Your task to perform on an android device: turn on improve location accuracy Image 0: 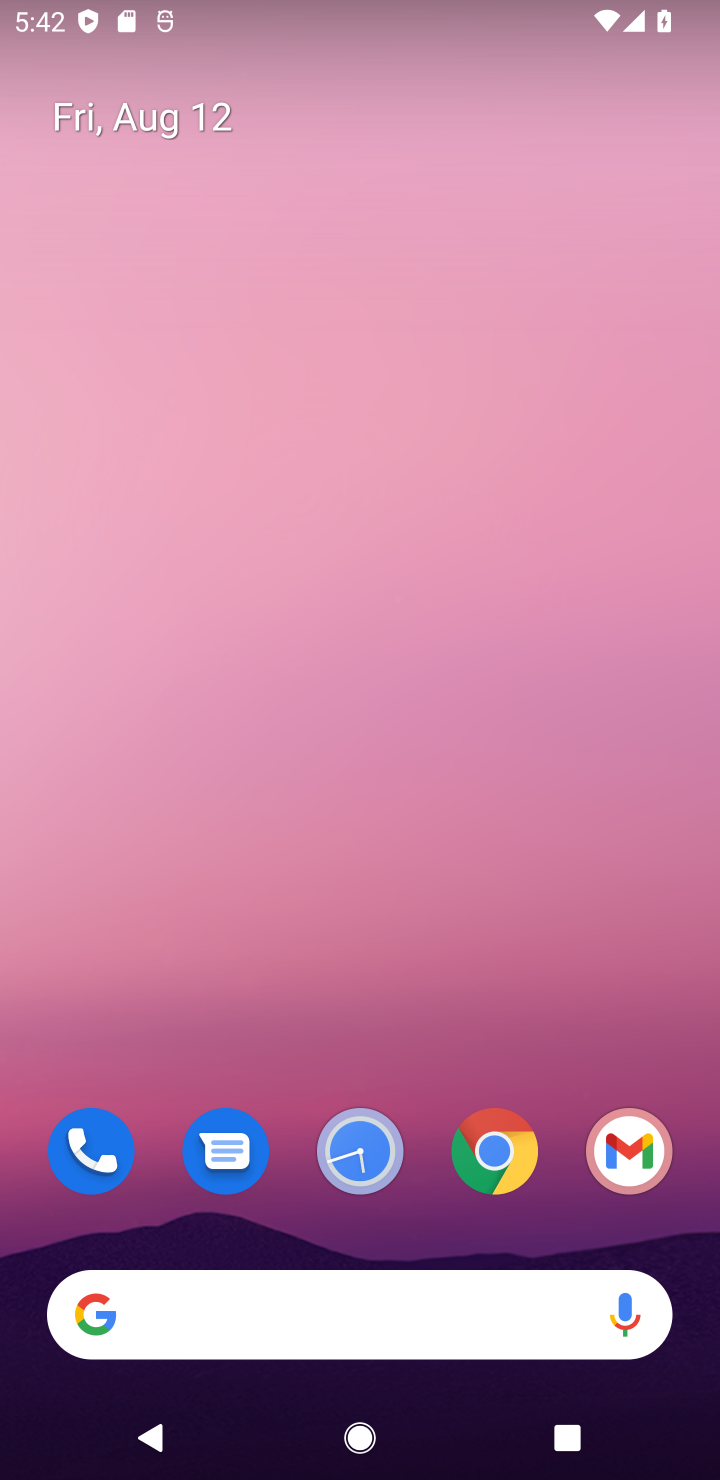
Step 0: drag from (563, 1096) to (486, 139)
Your task to perform on an android device: turn on improve location accuracy Image 1: 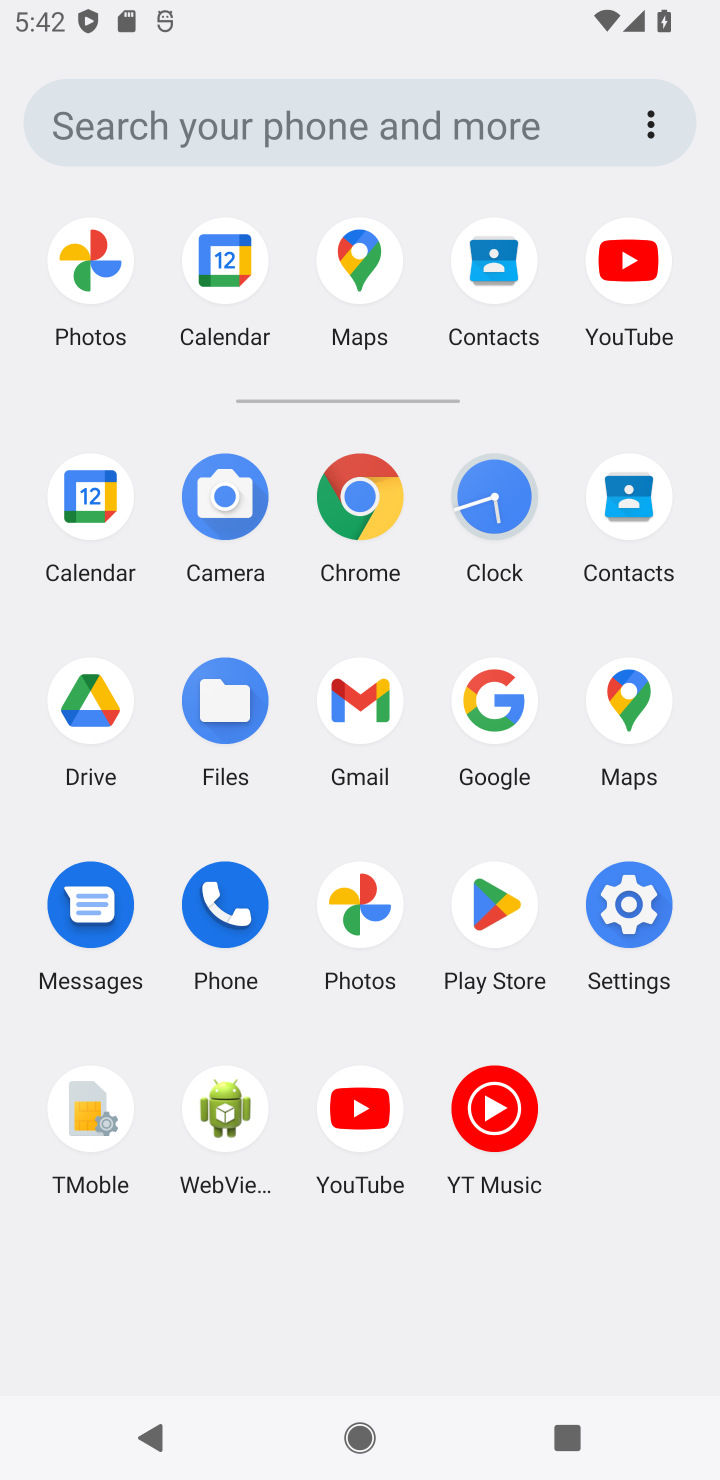
Step 1: click (638, 905)
Your task to perform on an android device: turn on improve location accuracy Image 2: 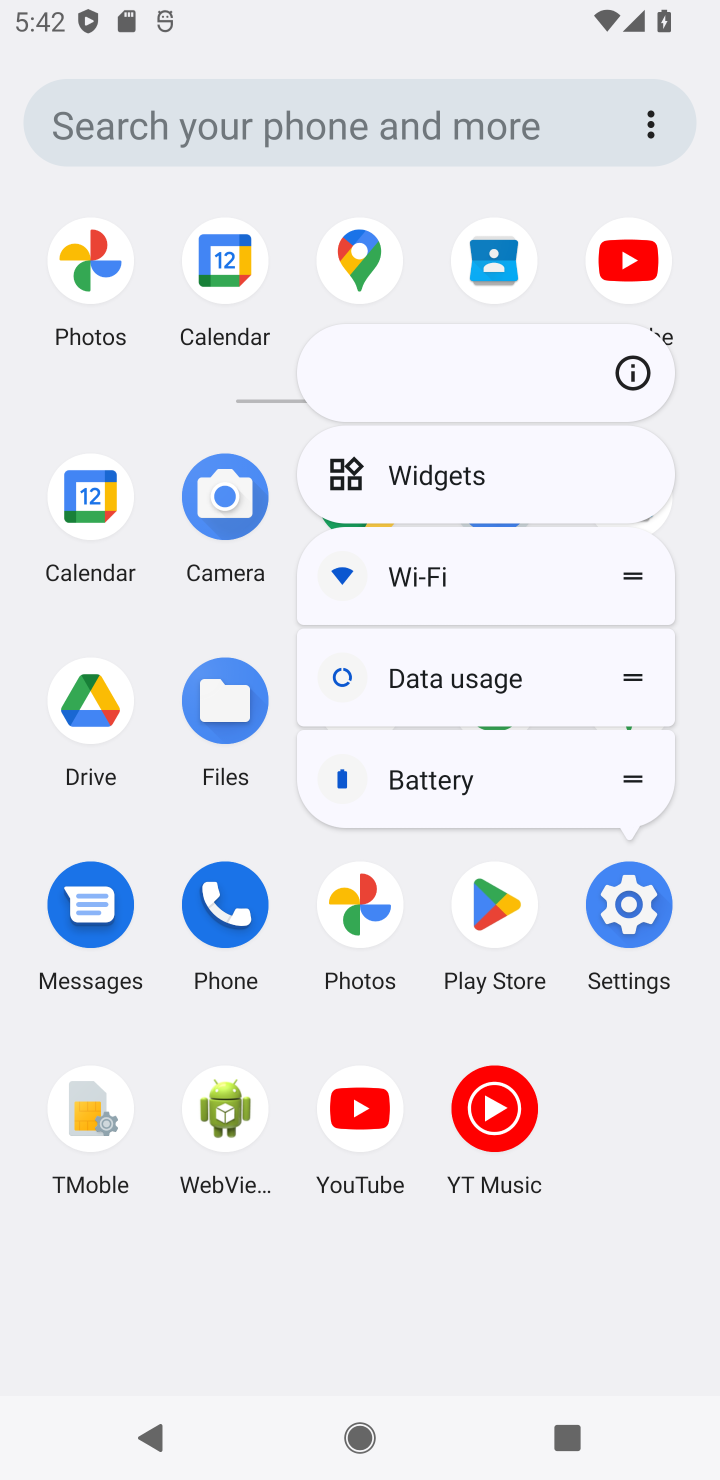
Step 2: click (628, 902)
Your task to perform on an android device: turn on improve location accuracy Image 3: 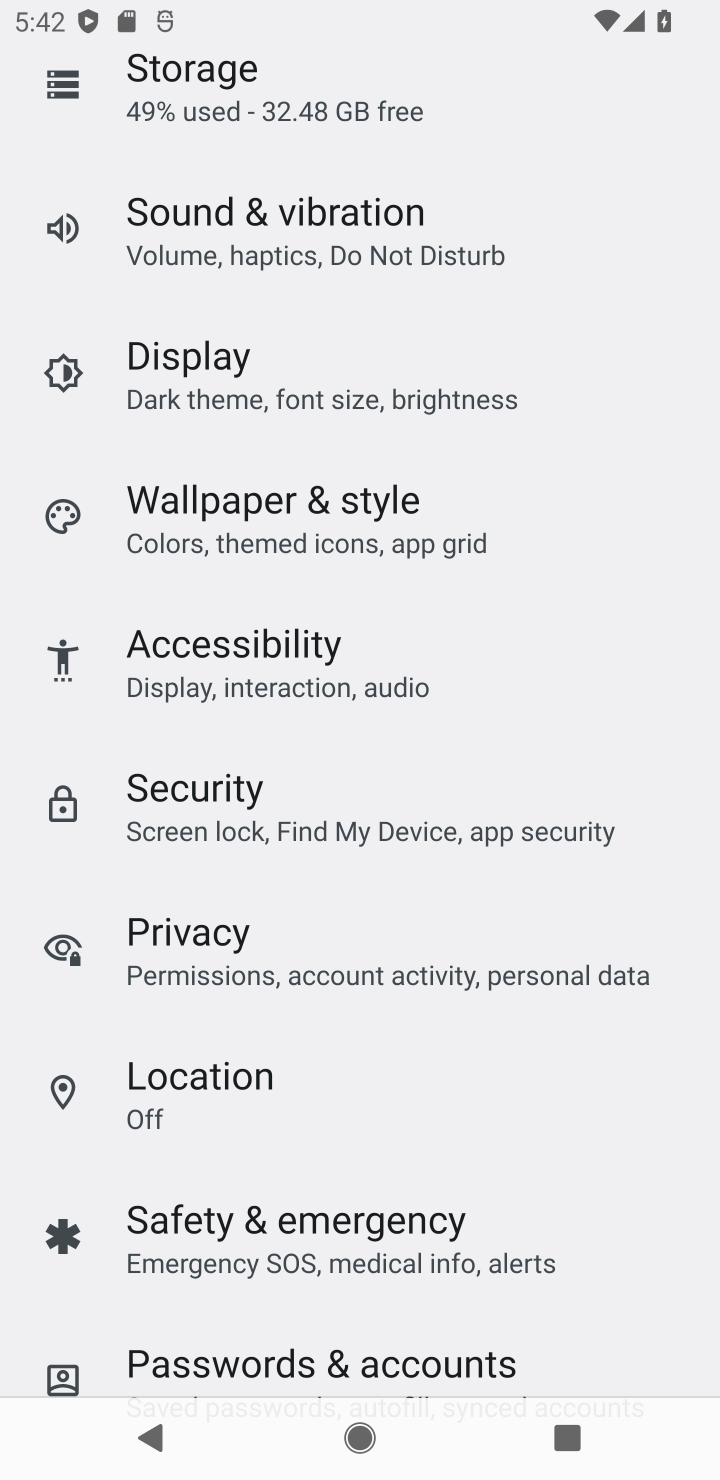
Step 3: click (154, 1082)
Your task to perform on an android device: turn on improve location accuracy Image 4: 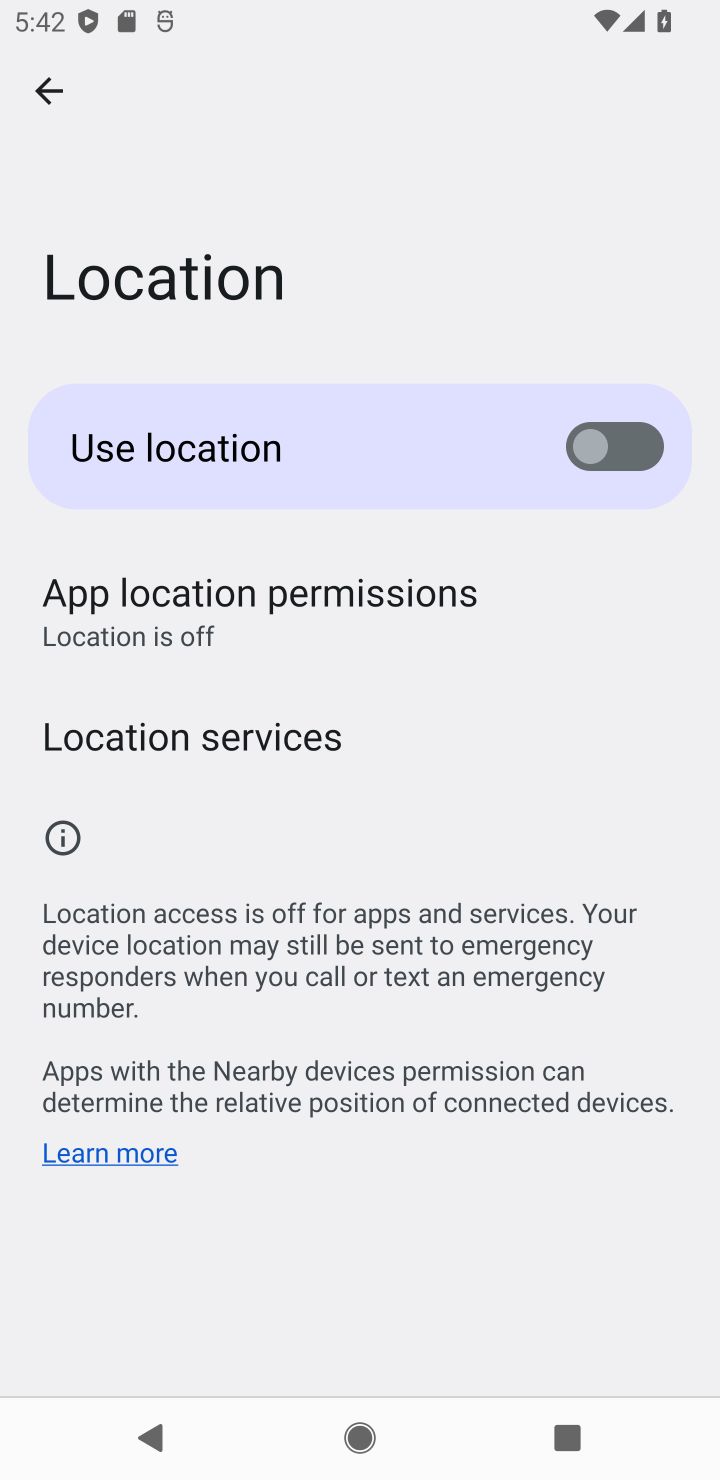
Step 4: click (262, 750)
Your task to perform on an android device: turn on improve location accuracy Image 5: 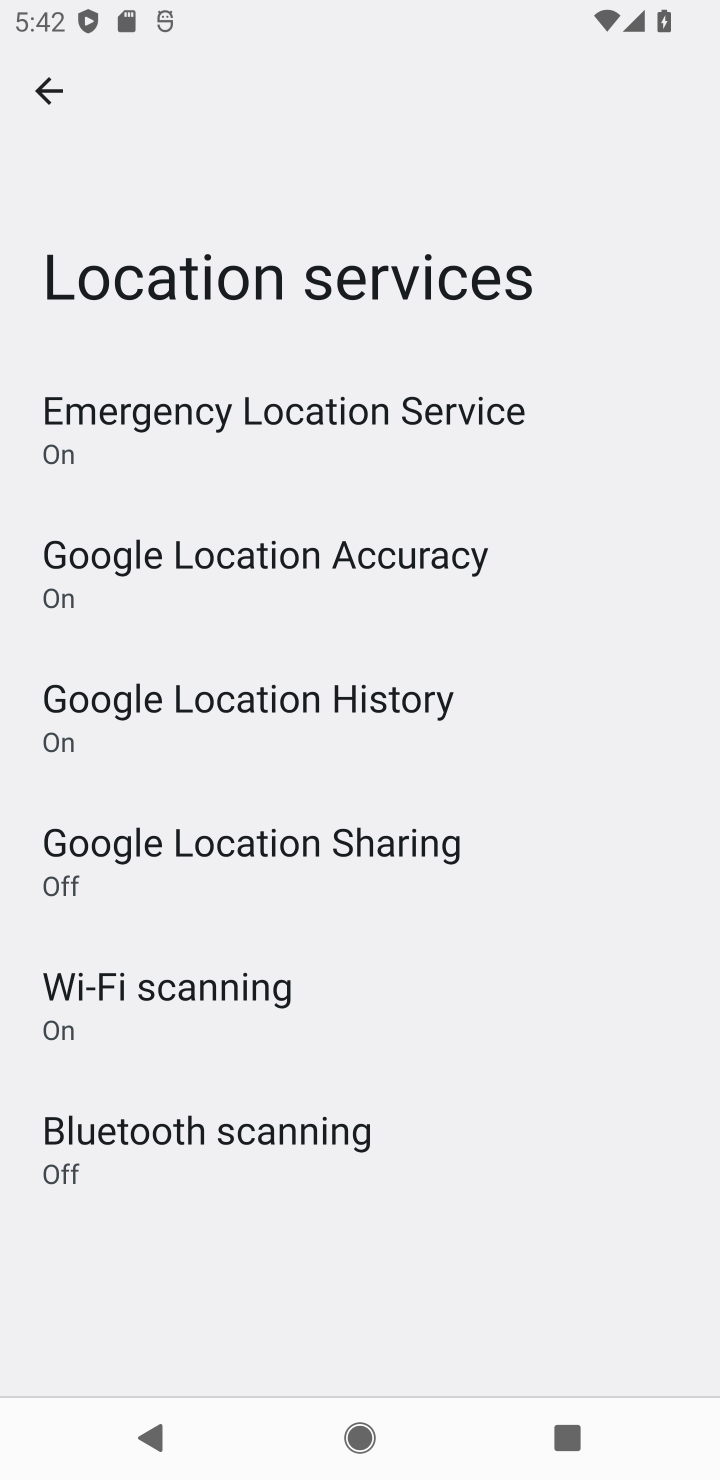
Step 5: click (462, 545)
Your task to perform on an android device: turn on improve location accuracy Image 6: 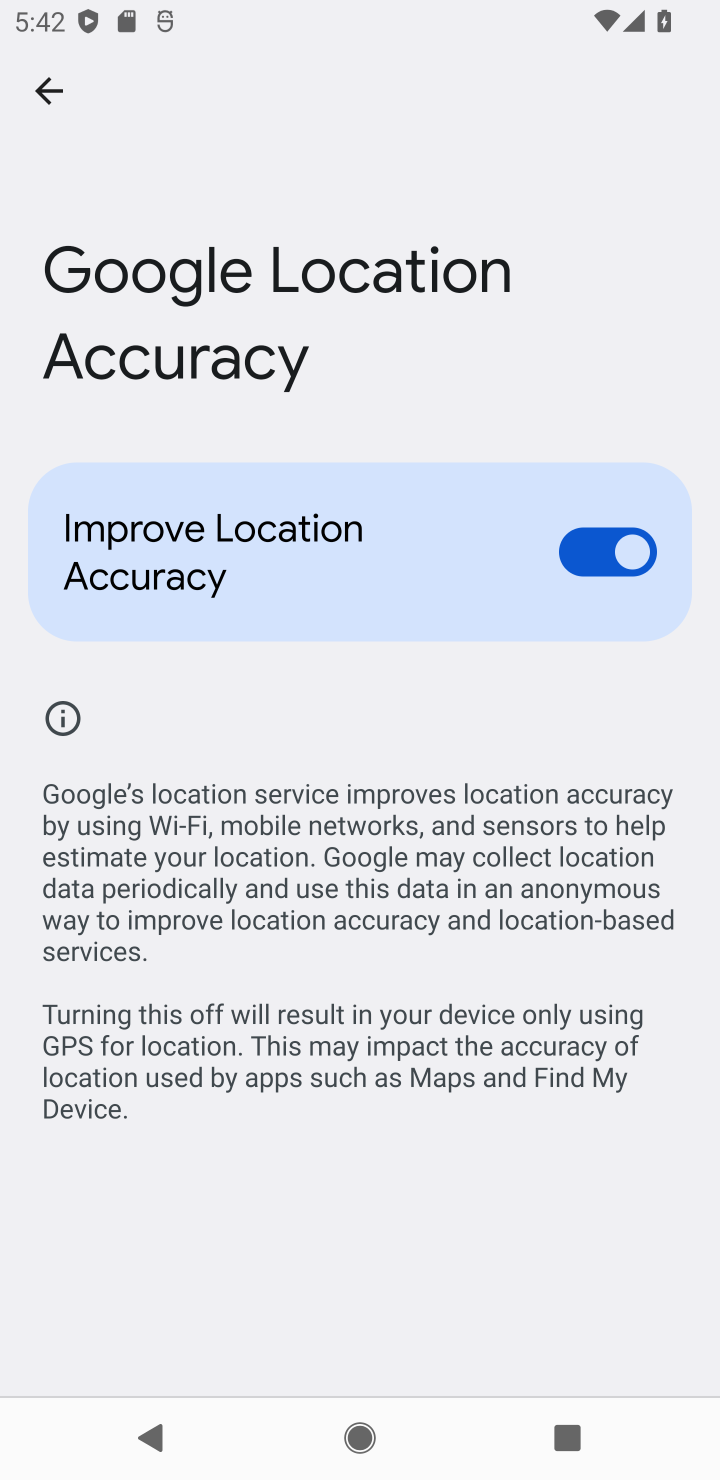
Step 6: task complete